Your task to perform on an android device: Show me popular videos on Youtube Image 0: 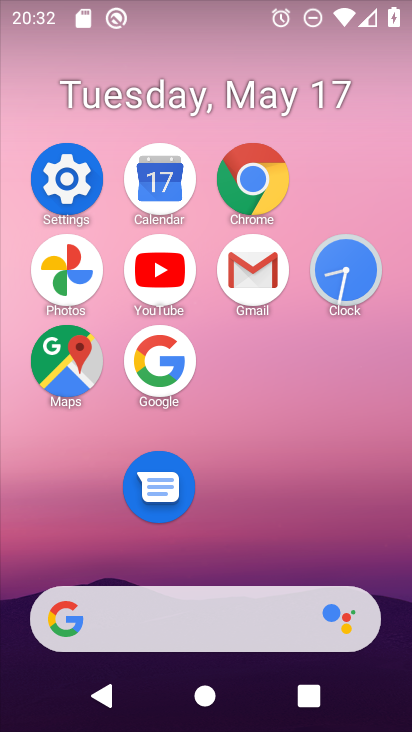
Step 0: drag from (278, 559) to (251, 141)
Your task to perform on an android device: Show me popular videos on Youtube Image 1: 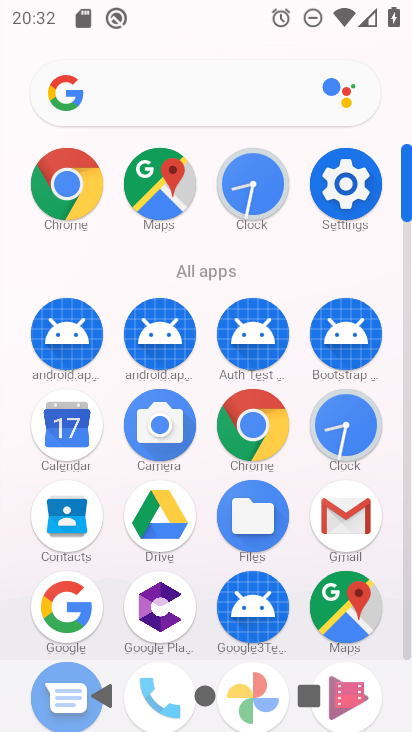
Step 1: drag from (248, 545) to (239, 181)
Your task to perform on an android device: Show me popular videos on Youtube Image 2: 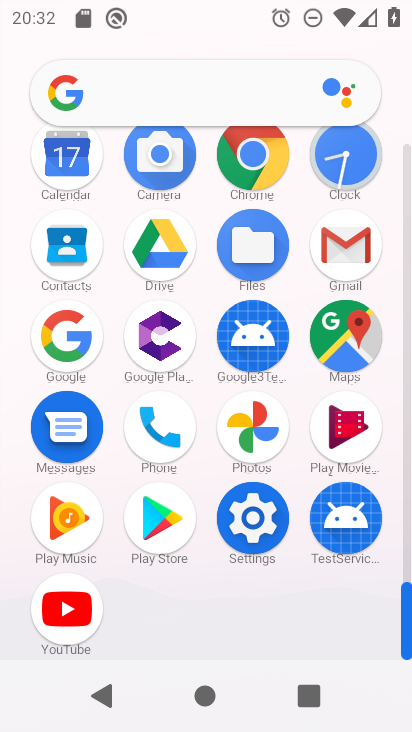
Step 2: click (75, 587)
Your task to perform on an android device: Show me popular videos on Youtube Image 3: 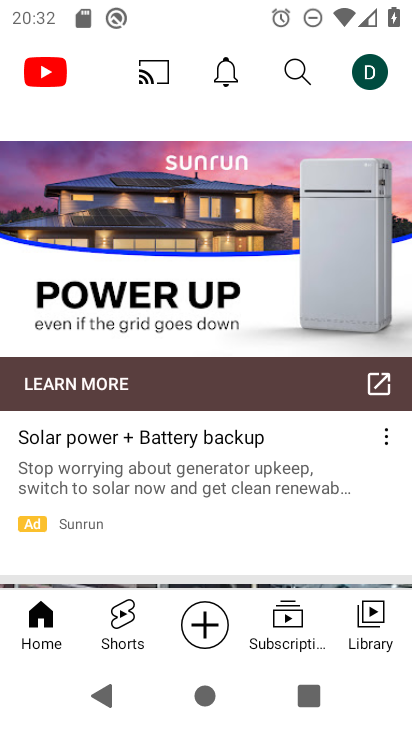
Step 3: task complete